Your task to perform on an android device: Open the Play Movies app and select the watchlist tab. Image 0: 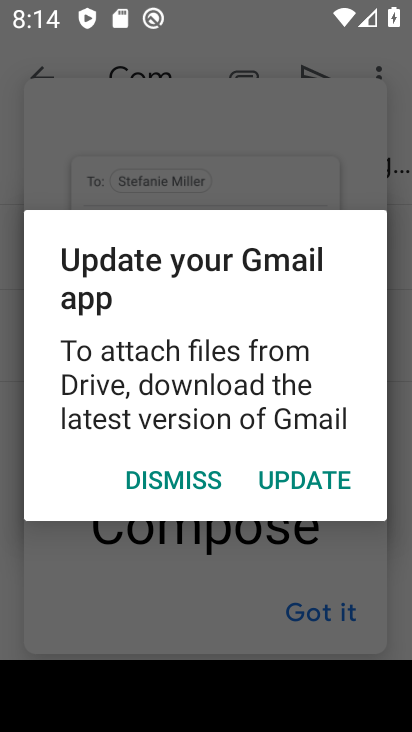
Step 0: press home button
Your task to perform on an android device: Open the Play Movies app and select the watchlist tab. Image 1: 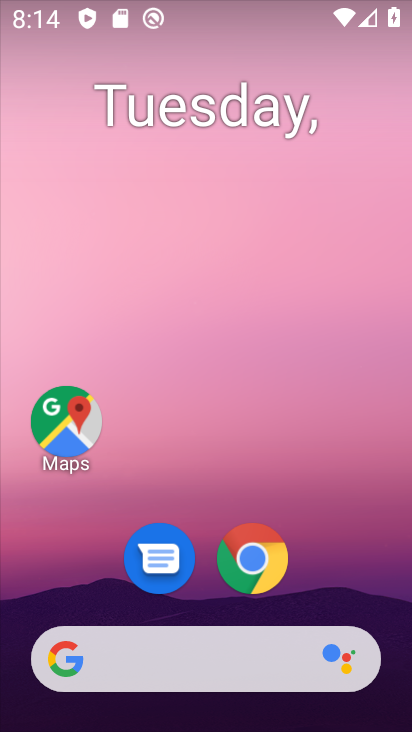
Step 1: drag from (224, 600) to (234, 239)
Your task to perform on an android device: Open the Play Movies app and select the watchlist tab. Image 2: 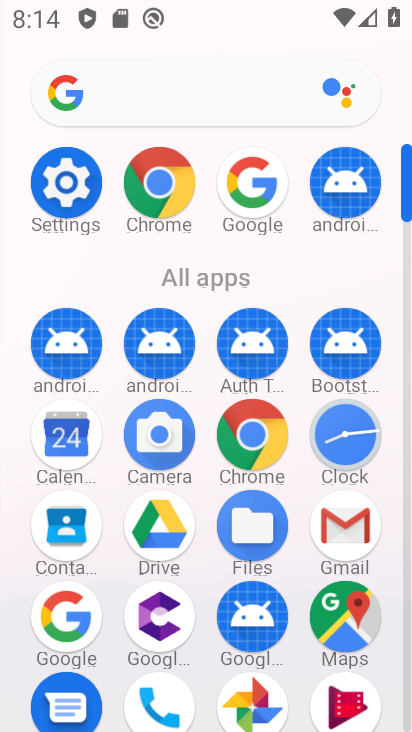
Step 2: click (329, 689)
Your task to perform on an android device: Open the Play Movies app and select the watchlist tab. Image 3: 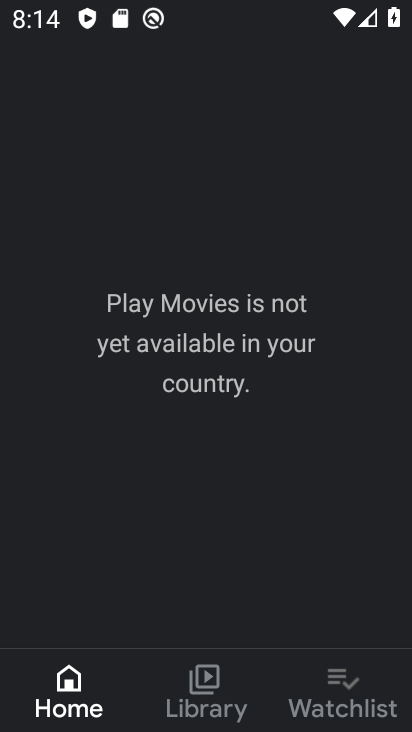
Step 3: click (338, 690)
Your task to perform on an android device: Open the Play Movies app and select the watchlist tab. Image 4: 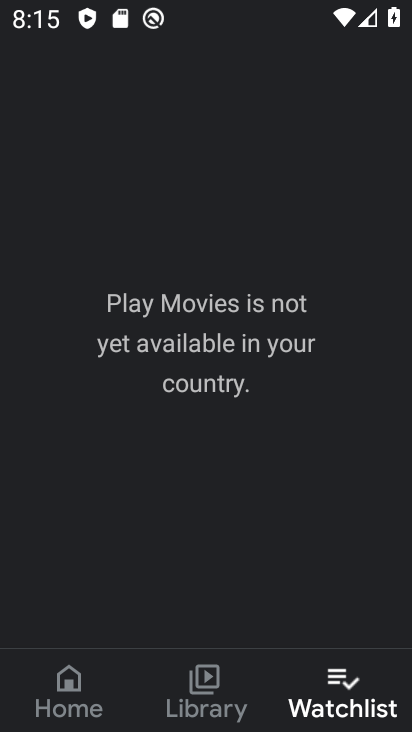
Step 4: task complete